Your task to perform on an android device: check out phone information Image 0: 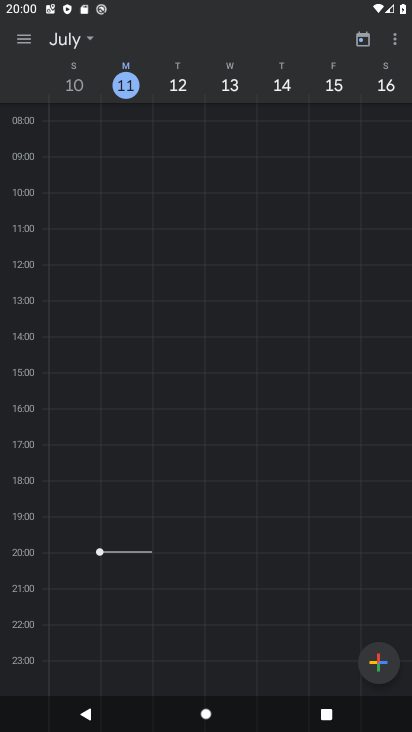
Step 0: press home button
Your task to perform on an android device: check out phone information Image 1: 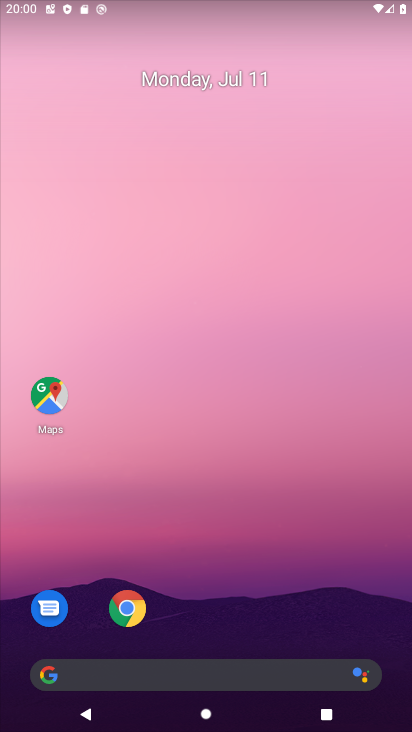
Step 1: drag from (230, 617) to (201, 105)
Your task to perform on an android device: check out phone information Image 2: 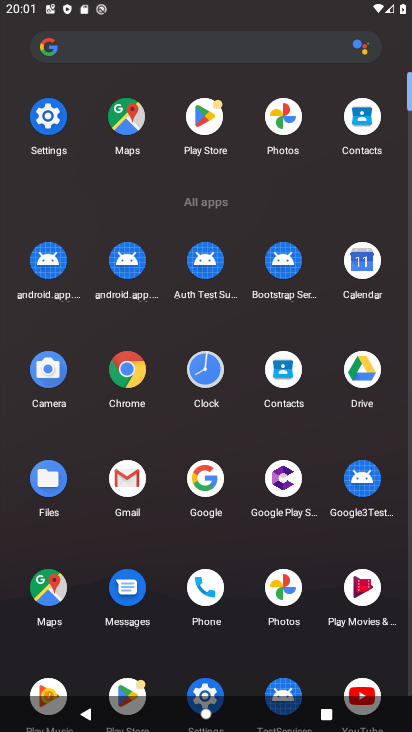
Step 2: click (205, 678)
Your task to perform on an android device: check out phone information Image 3: 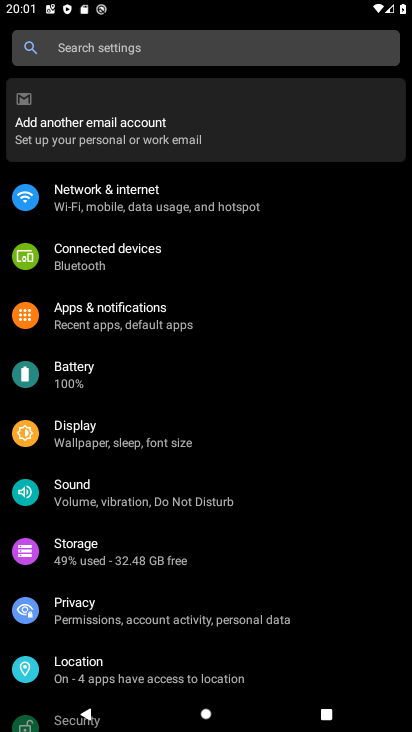
Step 3: drag from (143, 650) to (147, 247)
Your task to perform on an android device: check out phone information Image 4: 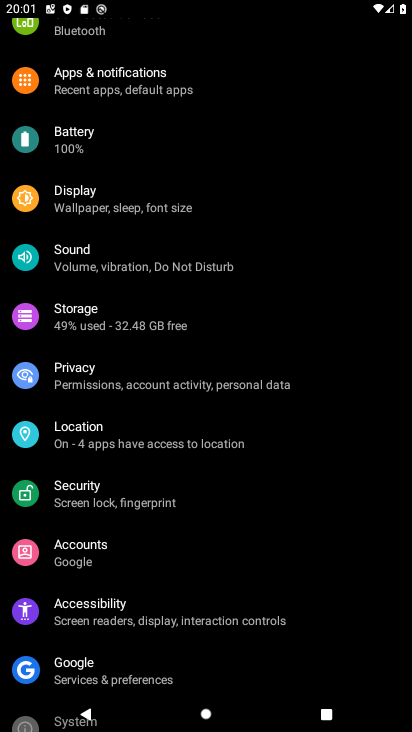
Step 4: drag from (144, 649) to (144, 411)
Your task to perform on an android device: check out phone information Image 5: 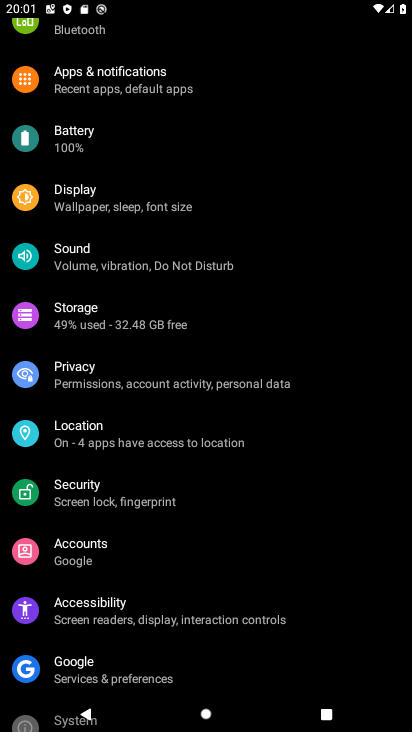
Step 5: drag from (158, 662) to (163, 478)
Your task to perform on an android device: check out phone information Image 6: 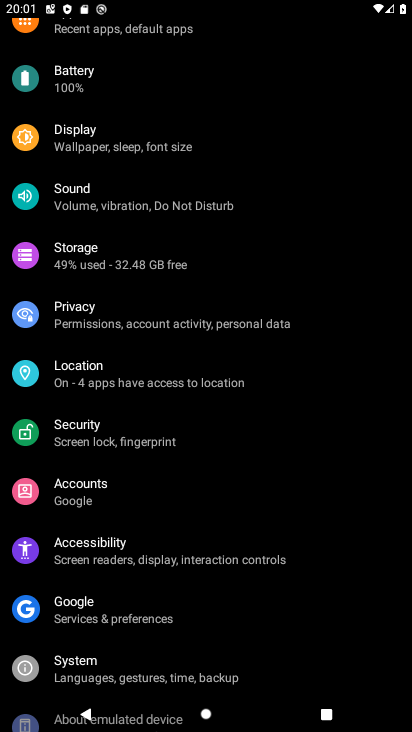
Step 6: drag from (190, 689) to (190, 354)
Your task to perform on an android device: check out phone information Image 7: 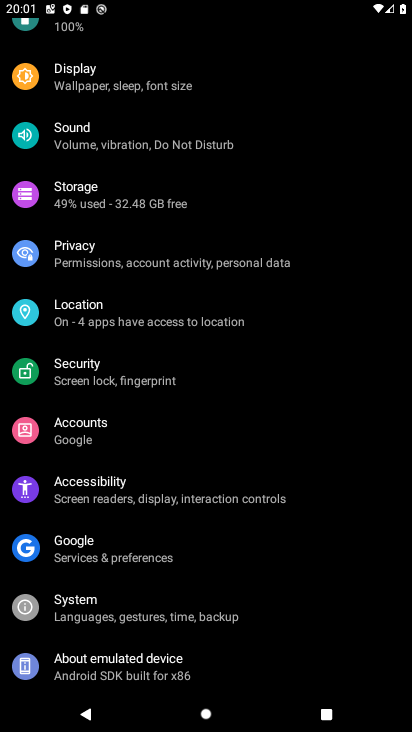
Step 7: click (151, 662)
Your task to perform on an android device: check out phone information Image 8: 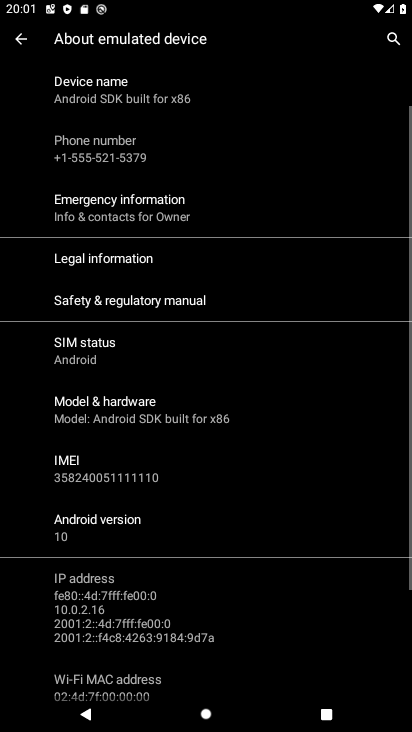
Step 8: task complete